Your task to perform on an android device: toggle sleep mode Image 0: 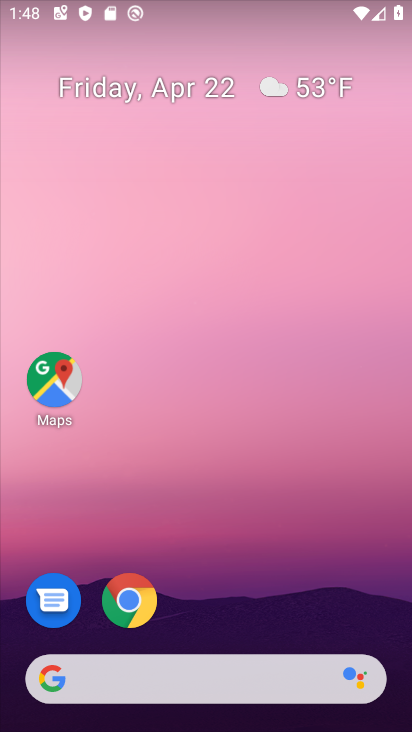
Step 0: drag from (223, 715) to (235, 139)
Your task to perform on an android device: toggle sleep mode Image 1: 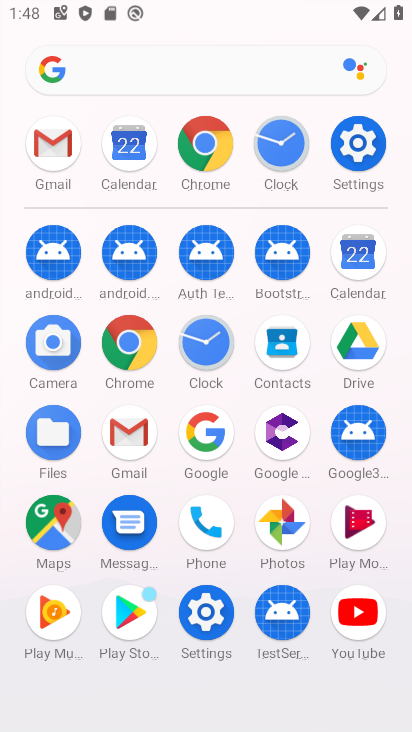
Step 1: click (359, 151)
Your task to perform on an android device: toggle sleep mode Image 2: 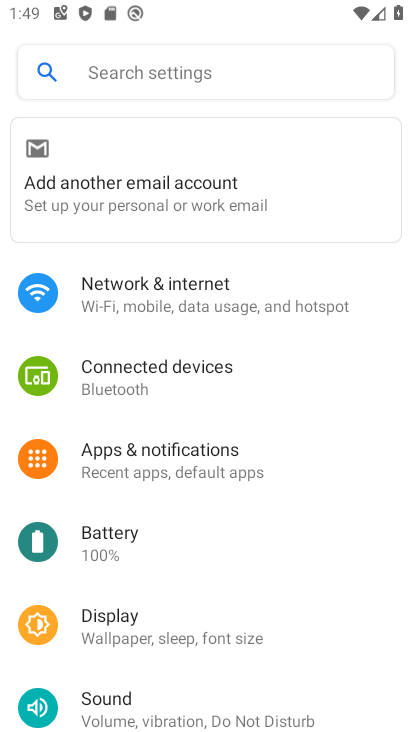
Step 2: click (142, 293)
Your task to perform on an android device: toggle sleep mode Image 3: 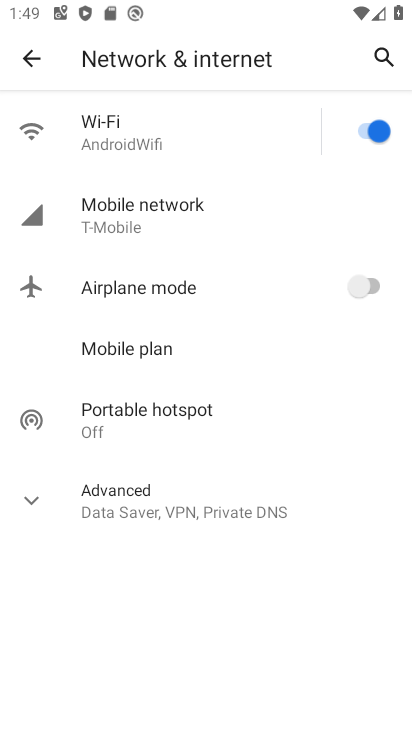
Step 3: click (35, 58)
Your task to perform on an android device: toggle sleep mode Image 4: 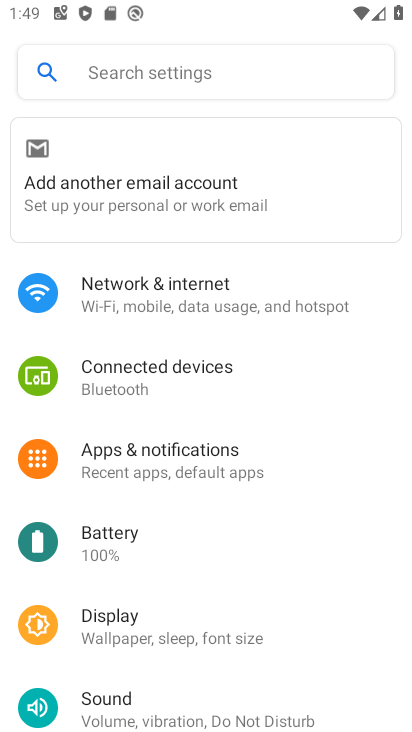
Step 4: drag from (223, 663) to (235, 187)
Your task to perform on an android device: toggle sleep mode Image 5: 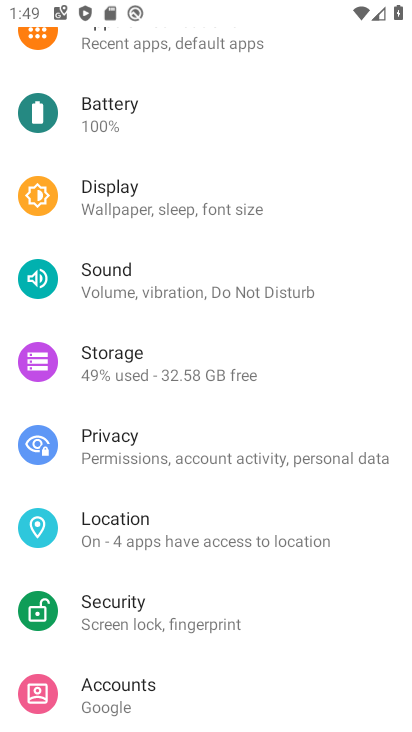
Step 5: click (172, 204)
Your task to perform on an android device: toggle sleep mode Image 6: 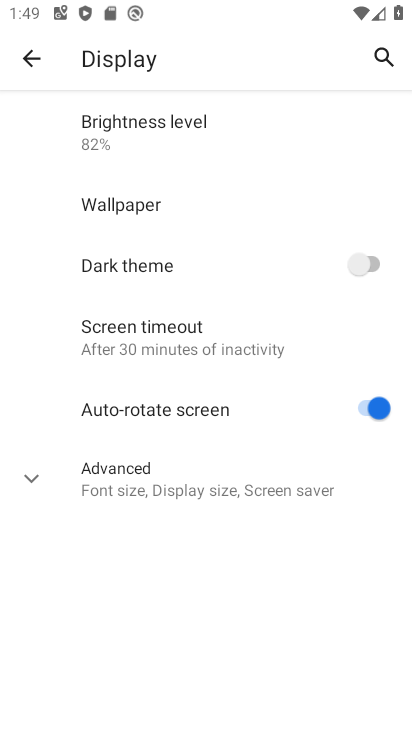
Step 6: click (29, 52)
Your task to perform on an android device: toggle sleep mode Image 7: 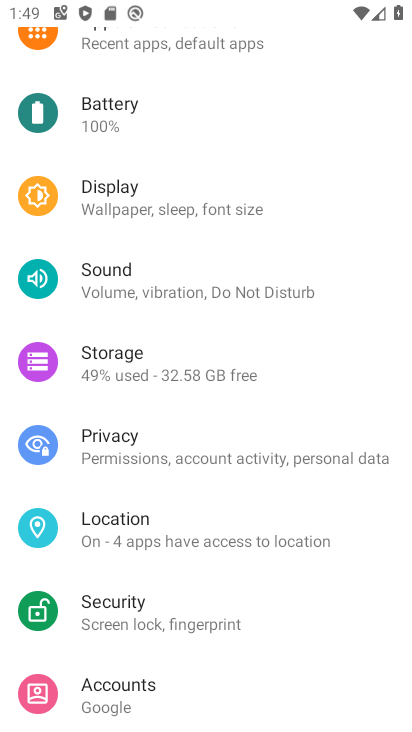
Step 7: task complete